Your task to perform on an android device: Open display settings Image 0: 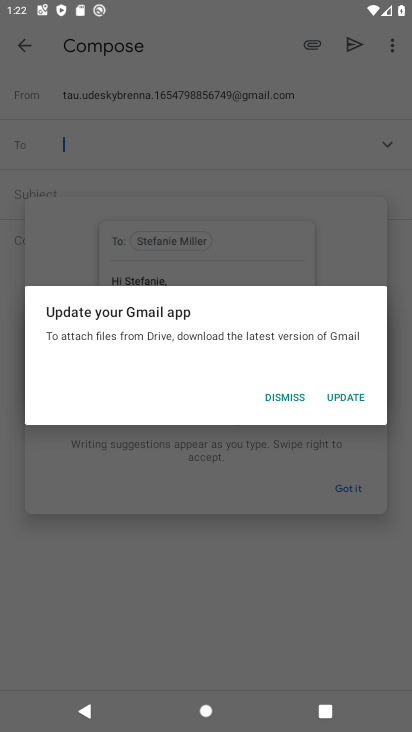
Step 0: press home button
Your task to perform on an android device: Open display settings Image 1: 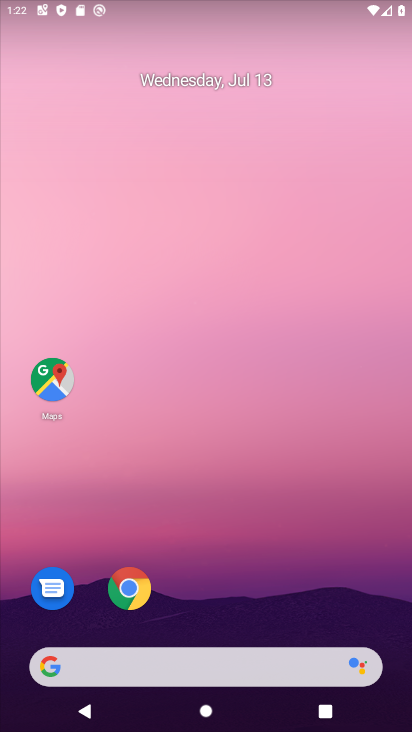
Step 1: drag from (124, 649) to (192, 213)
Your task to perform on an android device: Open display settings Image 2: 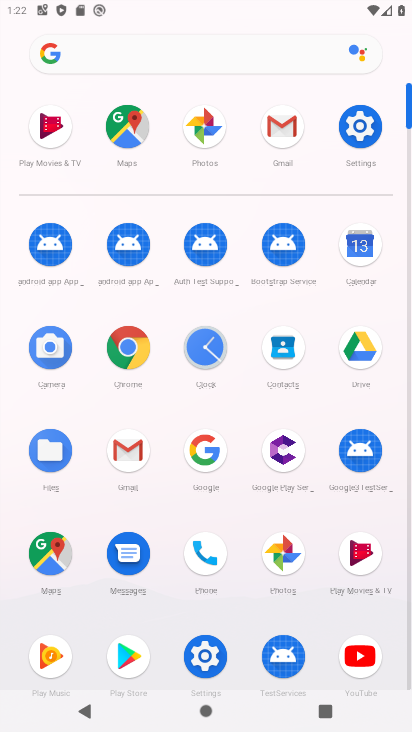
Step 2: click (366, 131)
Your task to perform on an android device: Open display settings Image 3: 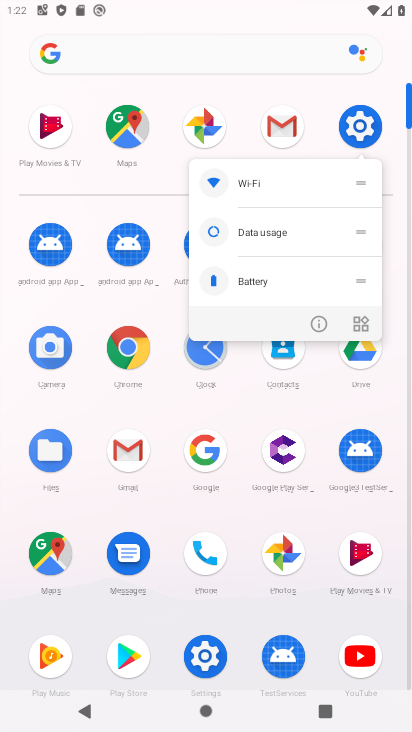
Step 3: click (366, 130)
Your task to perform on an android device: Open display settings Image 4: 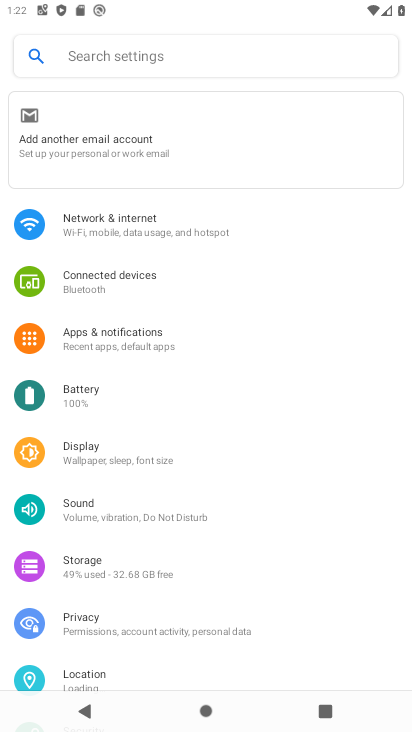
Step 4: click (85, 453)
Your task to perform on an android device: Open display settings Image 5: 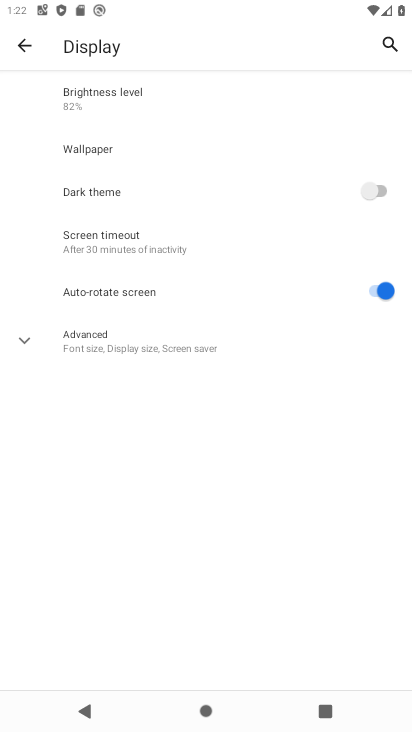
Step 5: click (91, 346)
Your task to perform on an android device: Open display settings Image 6: 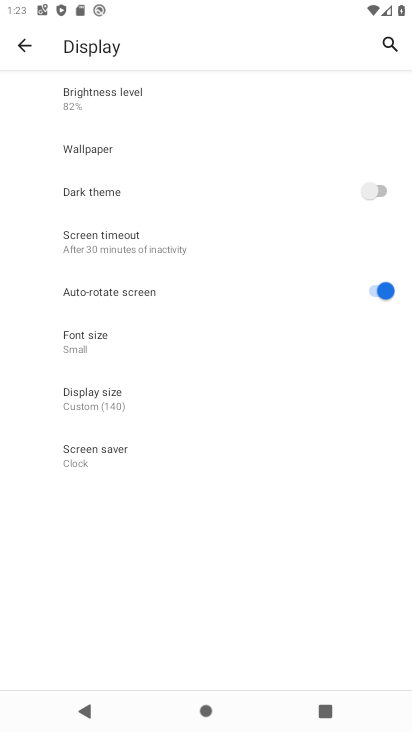
Step 6: task complete